Your task to perform on an android device: turn off notifications settings in the gmail app Image 0: 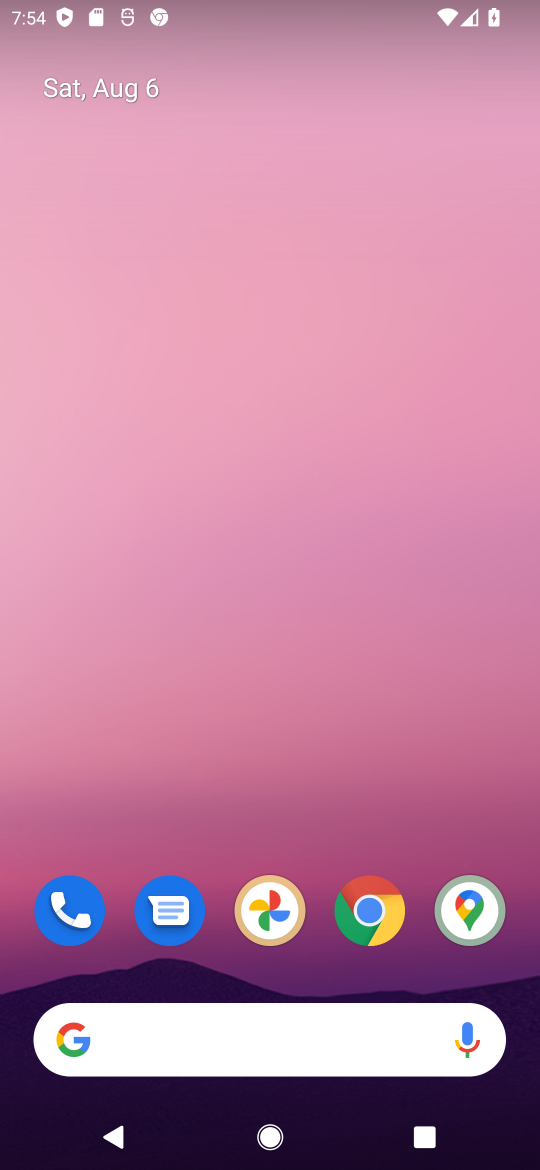
Step 0: drag from (480, 1084) to (533, 3)
Your task to perform on an android device: turn off notifications settings in the gmail app Image 1: 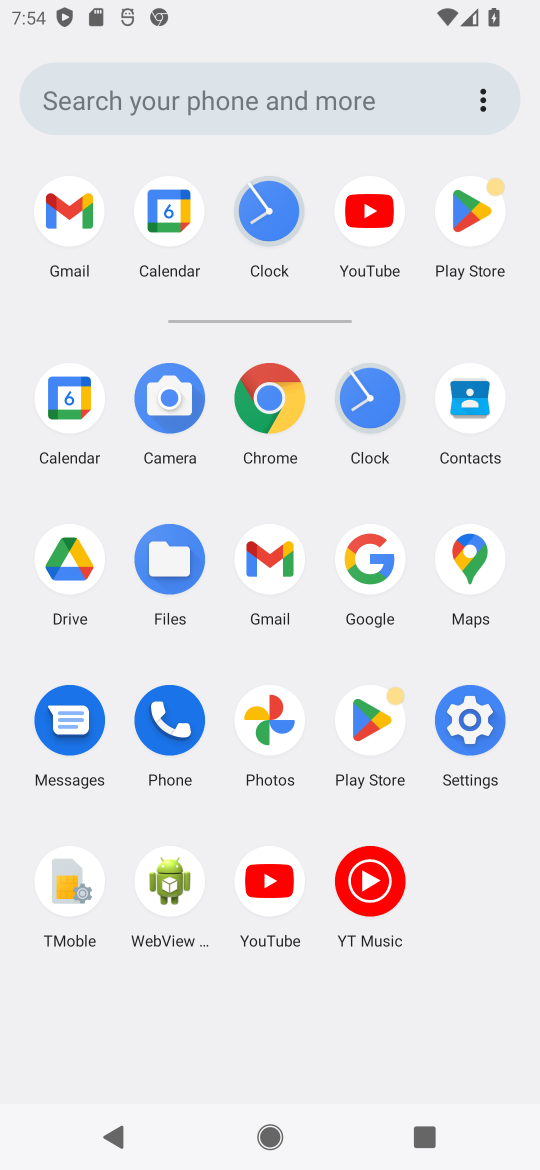
Step 1: click (275, 579)
Your task to perform on an android device: turn off notifications settings in the gmail app Image 2: 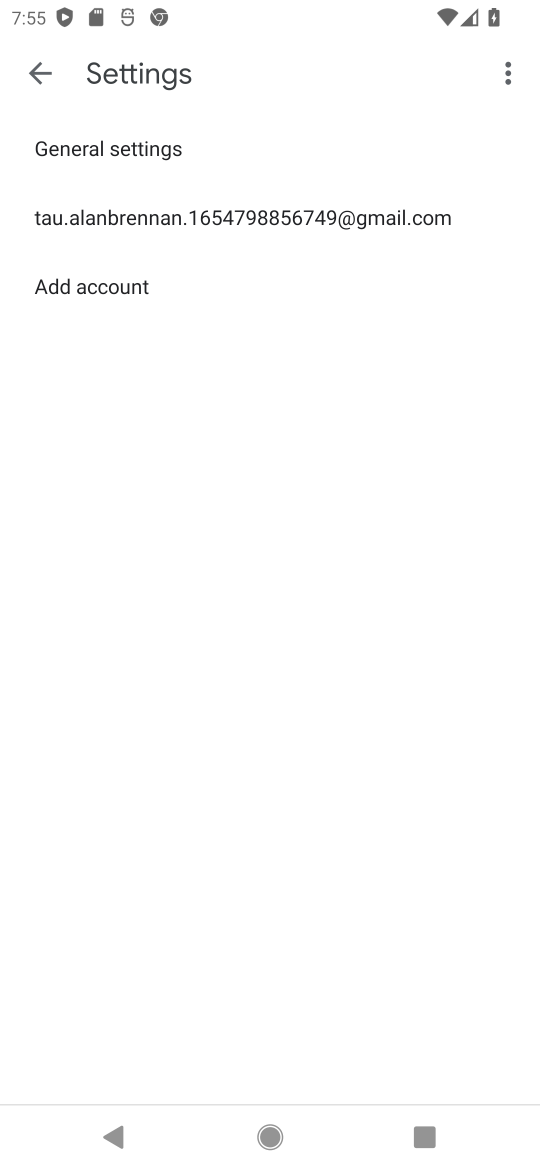
Step 2: click (160, 214)
Your task to perform on an android device: turn off notifications settings in the gmail app Image 3: 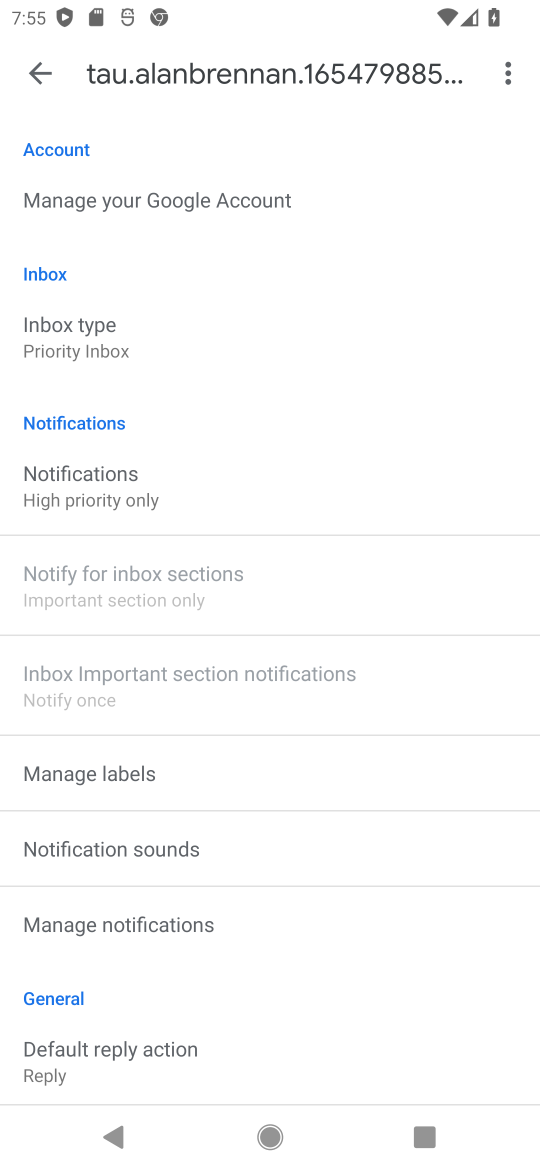
Step 3: click (102, 461)
Your task to perform on an android device: turn off notifications settings in the gmail app Image 4: 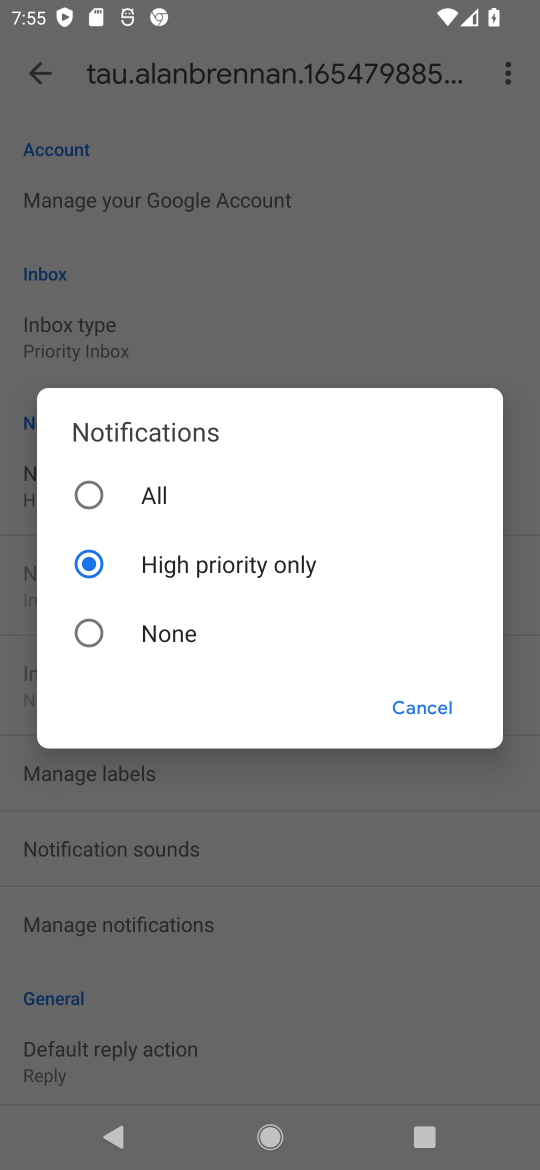
Step 4: click (96, 633)
Your task to perform on an android device: turn off notifications settings in the gmail app Image 5: 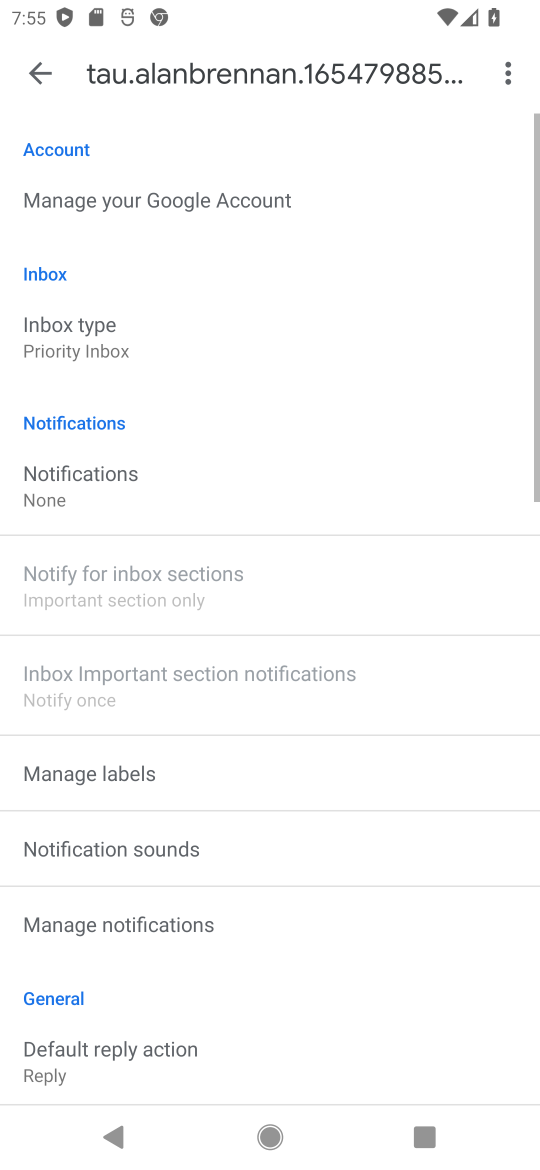
Step 5: click (73, 627)
Your task to perform on an android device: turn off notifications settings in the gmail app Image 6: 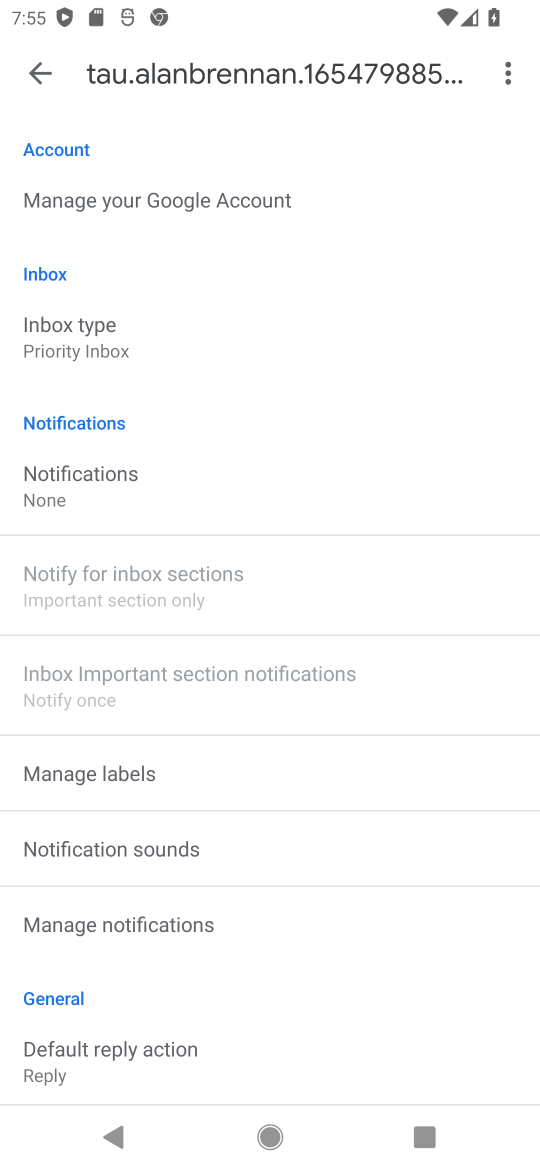
Step 6: task complete